Your task to perform on an android device: Search for "custom wallet" on Etsy. Image 0: 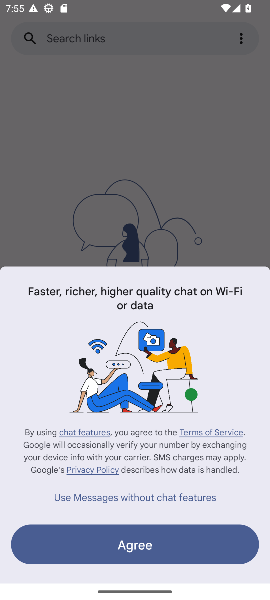
Step 0: press home button
Your task to perform on an android device: Search for "custom wallet" on Etsy. Image 1: 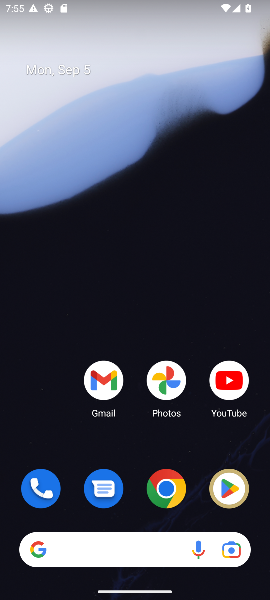
Step 1: click (171, 489)
Your task to perform on an android device: Search for "custom wallet" on Etsy. Image 2: 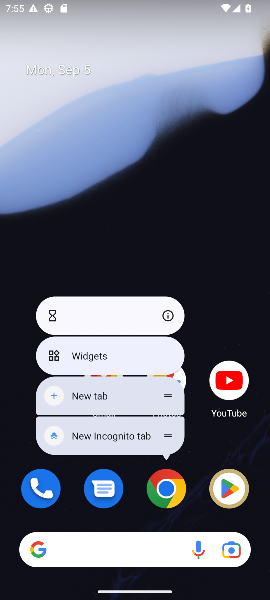
Step 2: click (170, 492)
Your task to perform on an android device: Search for "custom wallet" on Etsy. Image 3: 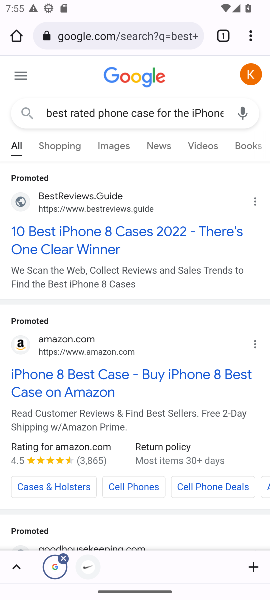
Step 3: click (130, 104)
Your task to perform on an android device: Search for "custom wallet" on Etsy. Image 4: 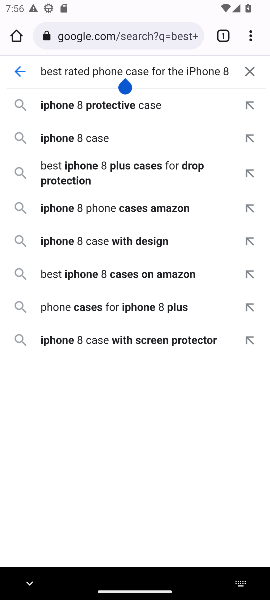
Step 4: click (251, 68)
Your task to perform on an android device: Search for "custom wallet" on Etsy. Image 5: 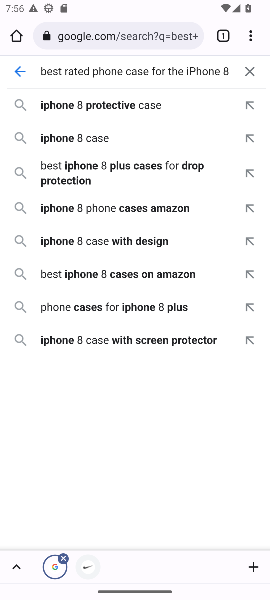
Step 5: drag from (177, 455) to (182, 305)
Your task to perform on an android device: Search for "custom wallet" on Etsy. Image 6: 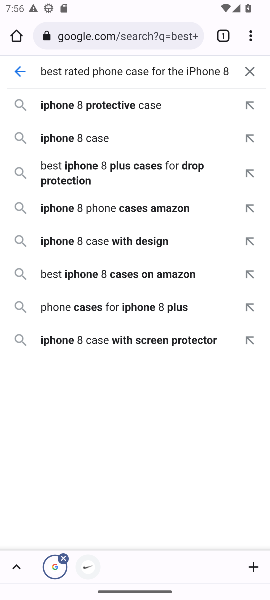
Step 6: press home button
Your task to perform on an android device: Search for "custom wallet" on Etsy. Image 7: 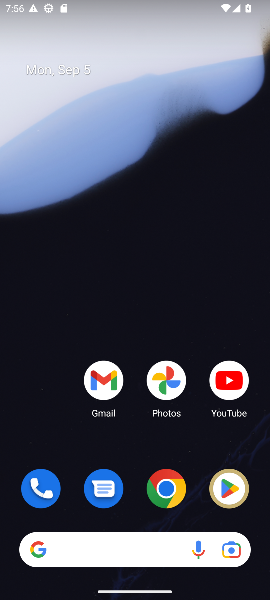
Step 7: click (161, 503)
Your task to perform on an android device: Search for "custom wallet" on Etsy. Image 8: 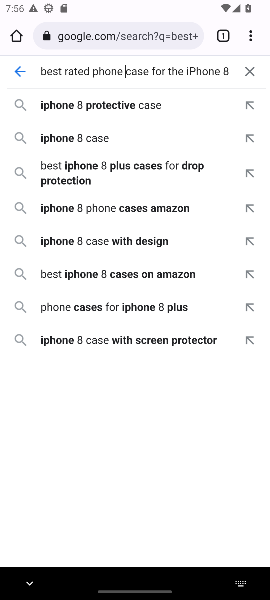
Step 8: click (134, 39)
Your task to perform on an android device: Search for "custom wallet" on Etsy. Image 9: 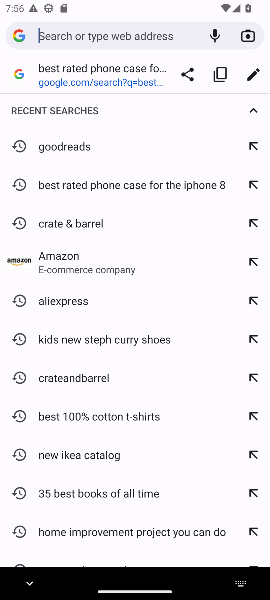
Step 9: type "etsy"
Your task to perform on an android device: Search for "custom wallet" on Etsy. Image 10: 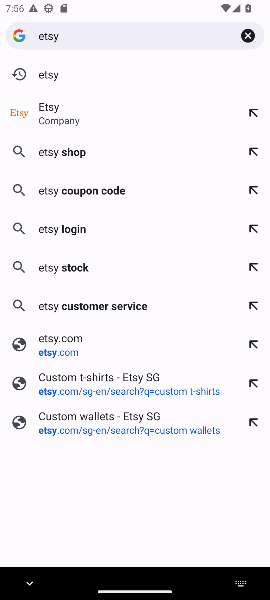
Step 10: type ""
Your task to perform on an android device: Search for "custom wallet" on Etsy. Image 11: 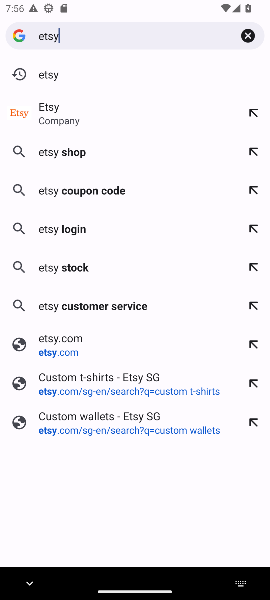
Step 11: press enter
Your task to perform on an android device: Search for "custom wallet" on Etsy. Image 12: 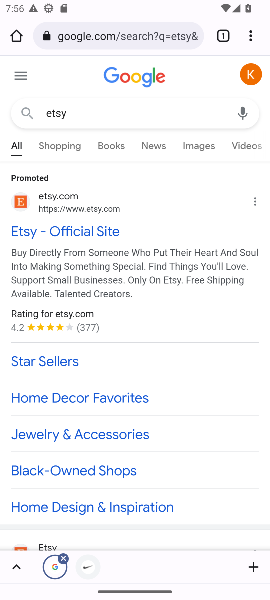
Step 12: click (109, 234)
Your task to perform on an android device: Search for "custom wallet" on Etsy. Image 13: 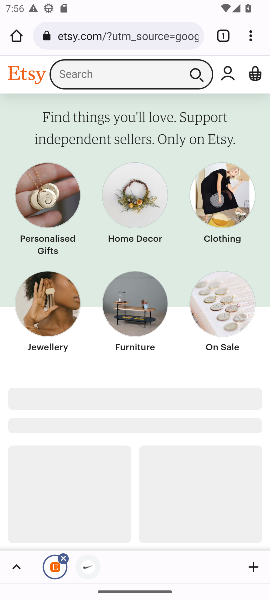
Step 13: click (146, 71)
Your task to perform on an android device: Search for "custom wallet" on Etsy. Image 14: 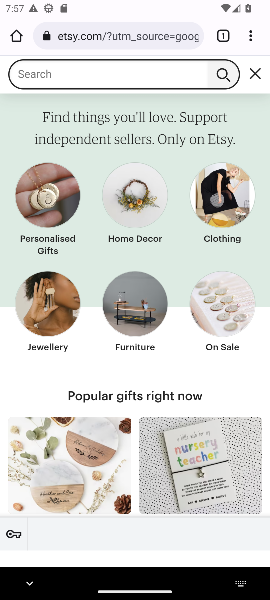
Step 14: type "custom wallet"
Your task to perform on an android device: Search for "custom wallet" on Etsy. Image 15: 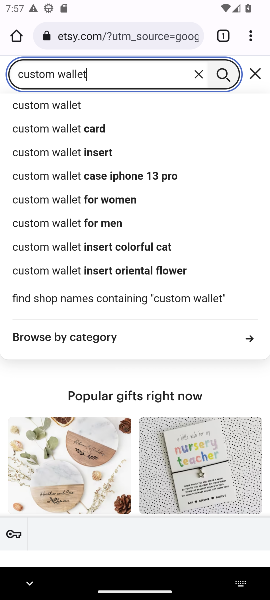
Step 15: press enter
Your task to perform on an android device: Search for "custom wallet" on Etsy. Image 16: 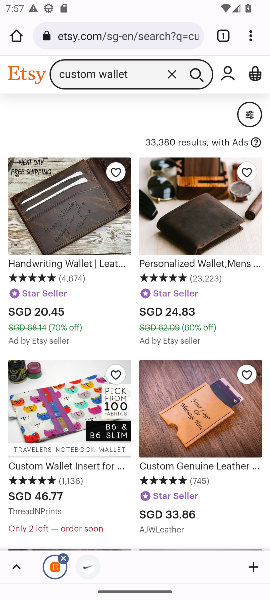
Step 16: task complete